Your task to perform on an android device: Open location settings Image 0: 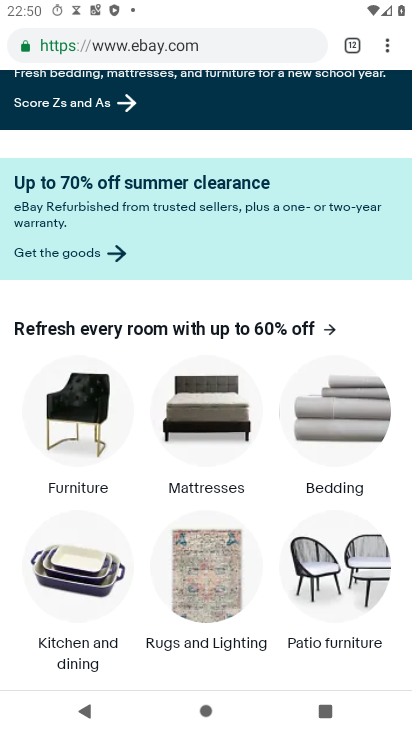
Step 0: press home button
Your task to perform on an android device: Open location settings Image 1: 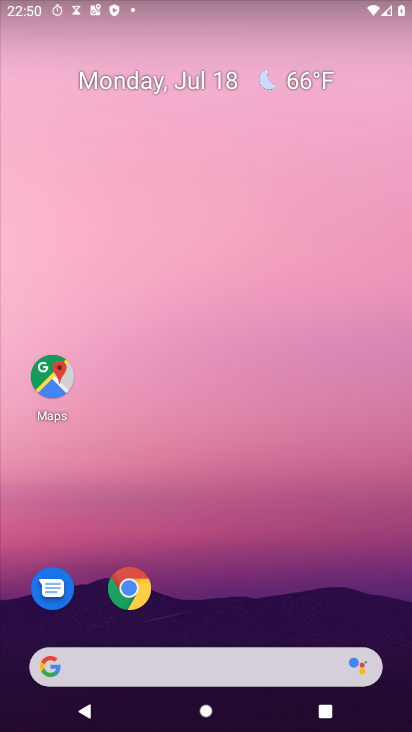
Step 1: drag from (180, 677) to (270, 12)
Your task to perform on an android device: Open location settings Image 2: 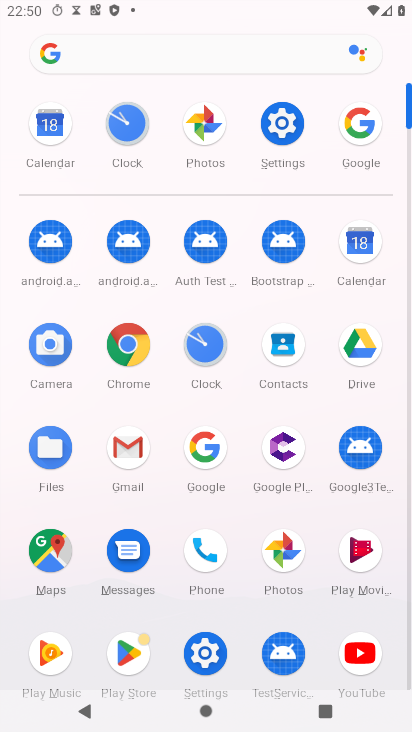
Step 2: click (283, 127)
Your task to perform on an android device: Open location settings Image 3: 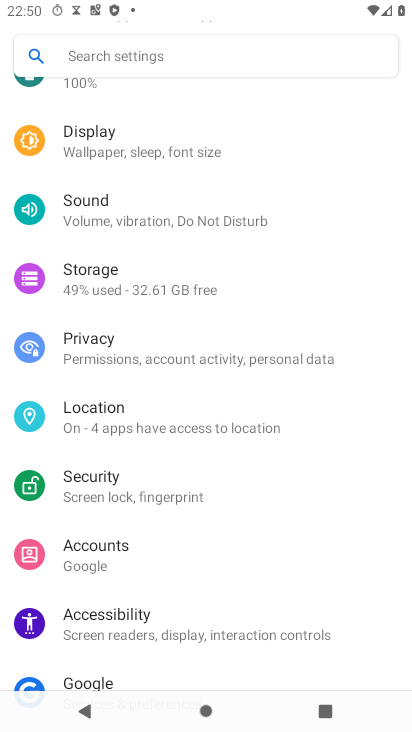
Step 3: click (93, 423)
Your task to perform on an android device: Open location settings Image 4: 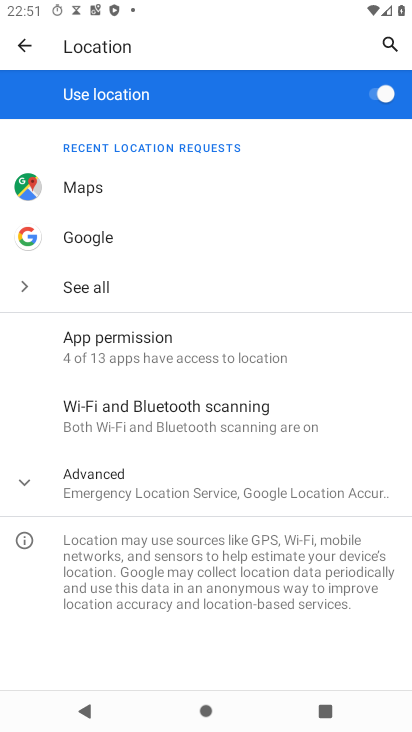
Step 4: task complete